Your task to perform on an android device: delete the emails in spam in the gmail app Image 0: 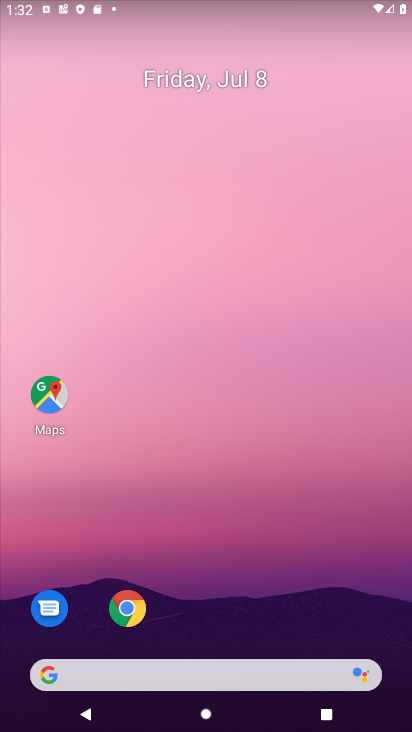
Step 0: drag from (392, 631) to (320, 101)
Your task to perform on an android device: delete the emails in spam in the gmail app Image 1: 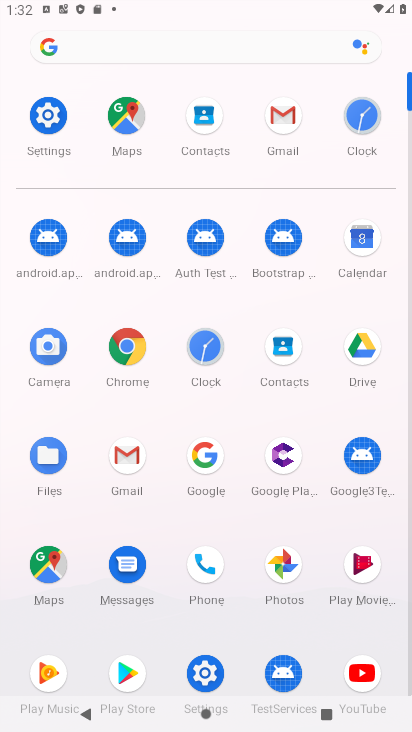
Step 1: click (124, 456)
Your task to perform on an android device: delete the emails in spam in the gmail app Image 2: 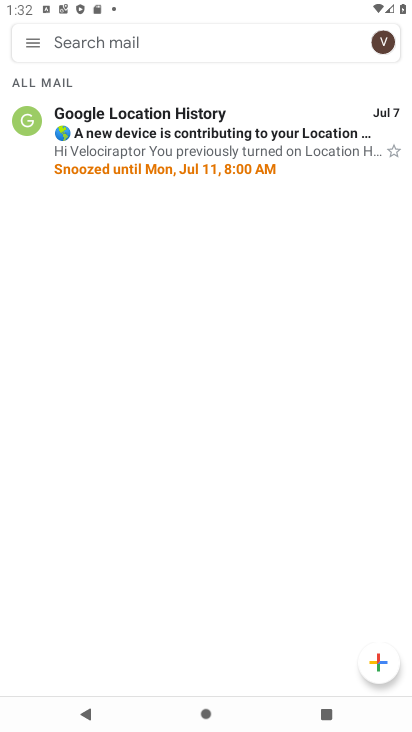
Step 2: click (34, 41)
Your task to perform on an android device: delete the emails in spam in the gmail app Image 3: 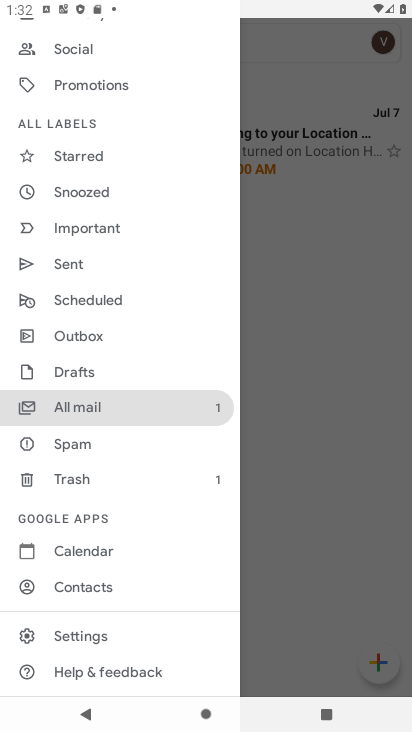
Step 3: click (73, 444)
Your task to perform on an android device: delete the emails in spam in the gmail app Image 4: 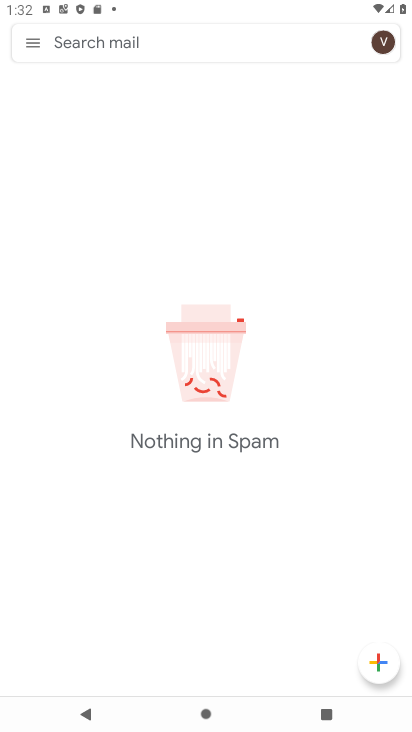
Step 4: task complete